Your task to perform on an android device: Go to sound settings Image 0: 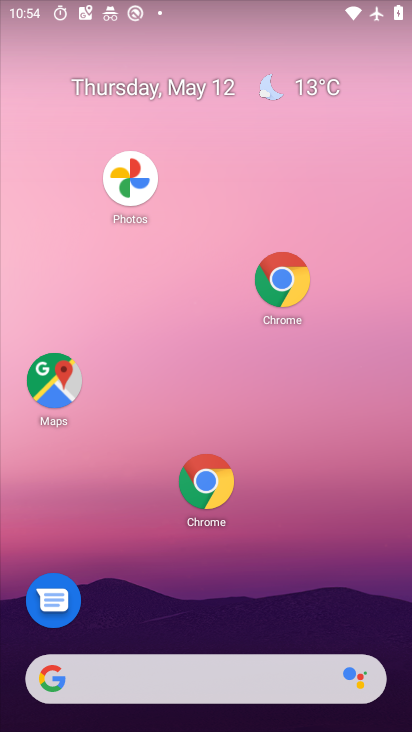
Step 0: drag from (307, 597) to (187, 19)
Your task to perform on an android device: Go to sound settings Image 1: 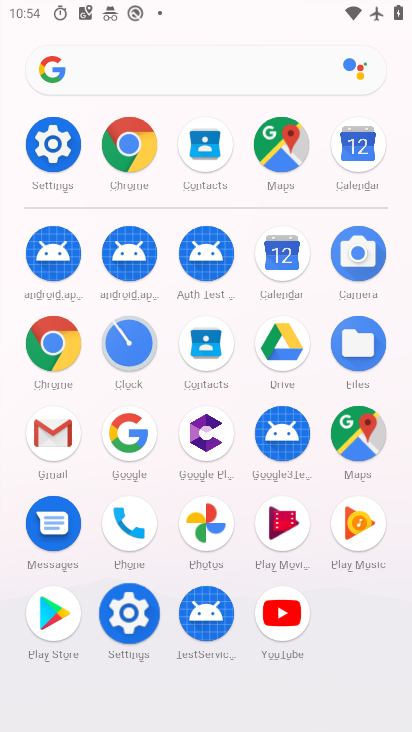
Step 1: click (59, 141)
Your task to perform on an android device: Go to sound settings Image 2: 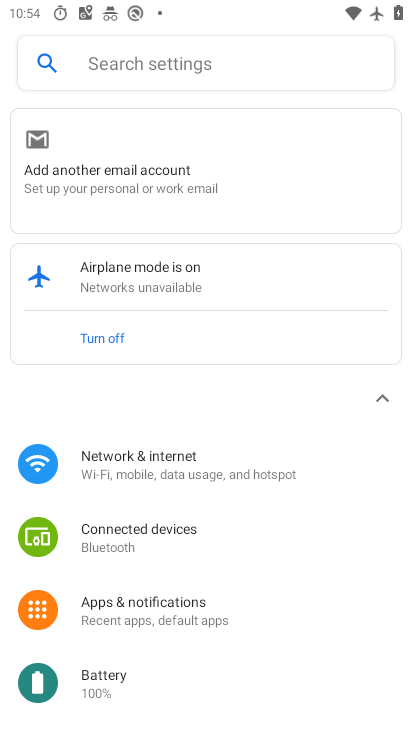
Step 2: drag from (208, 575) to (186, 197)
Your task to perform on an android device: Go to sound settings Image 3: 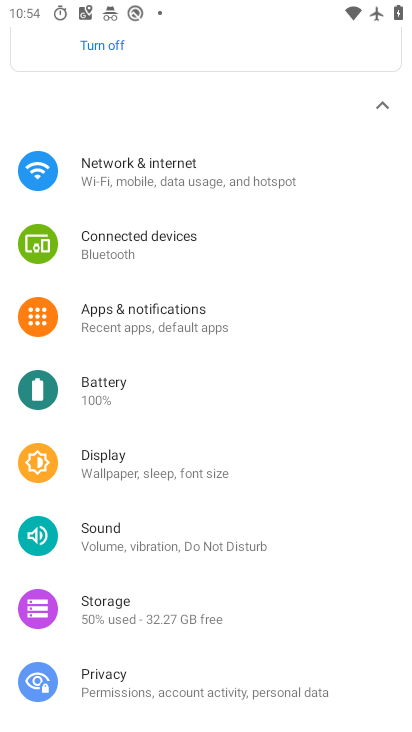
Step 3: drag from (316, 589) to (241, 145)
Your task to perform on an android device: Go to sound settings Image 4: 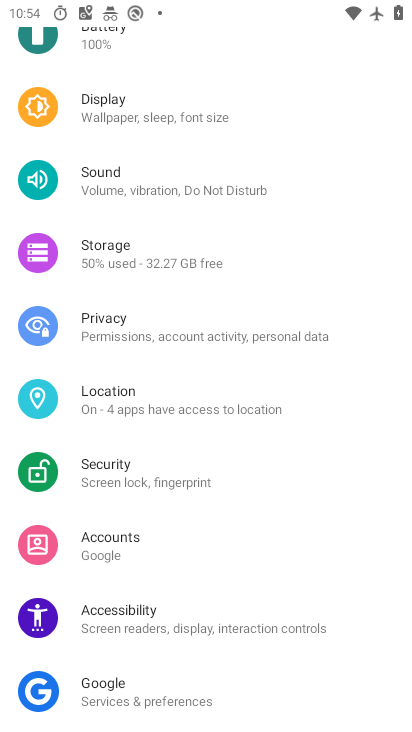
Step 4: click (116, 184)
Your task to perform on an android device: Go to sound settings Image 5: 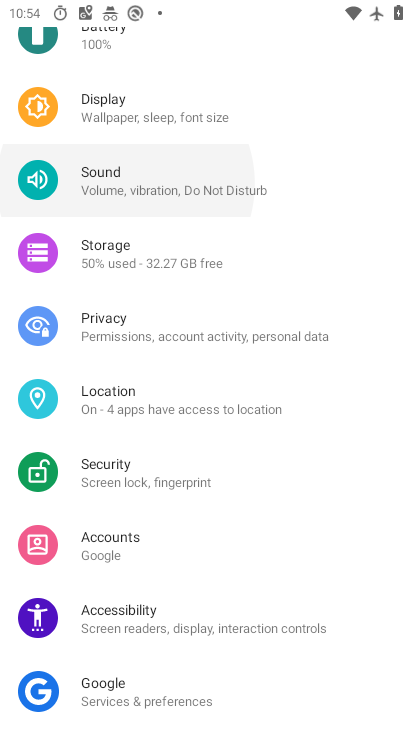
Step 5: click (116, 184)
Your task to perform on an android device: Go to sound settings Image 6: 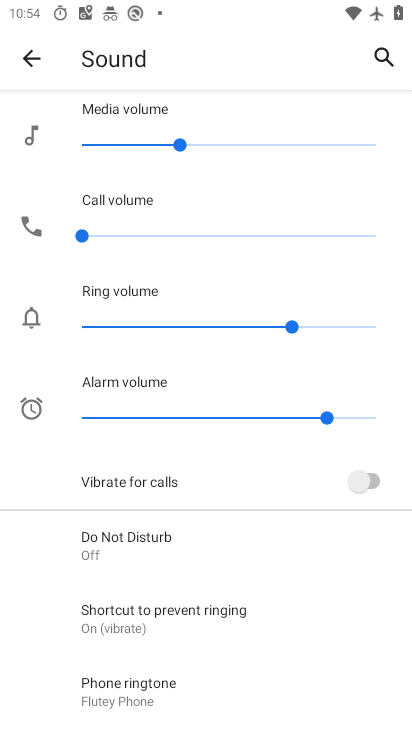
Step 6: task complete